Your task to perform on an android device: Open Youtube and go to "Your channel" Image 0: 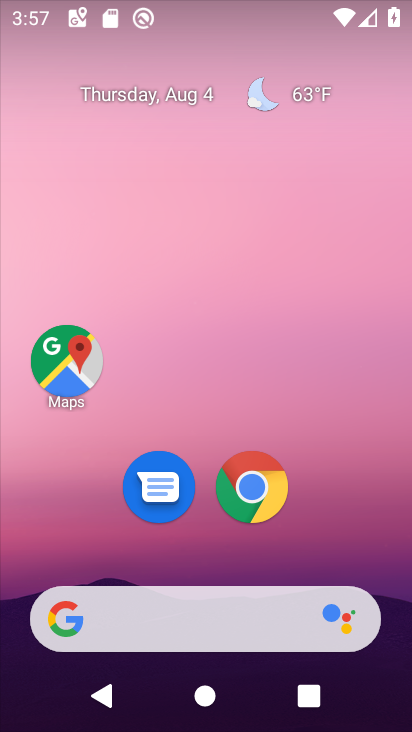
Step 0: drag from (173, 563) to (231, 159)
Your task to perform on an android device: Open Youtube and go to "Your channel" Image 1: 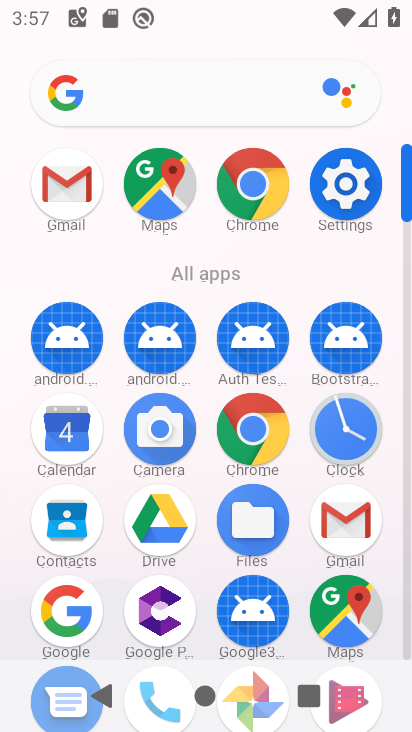
Step 1: drag from (200, 555) to (367, 13)
Your task to perform on an android device: Open Youtube and go to "Your channel" Image 2: 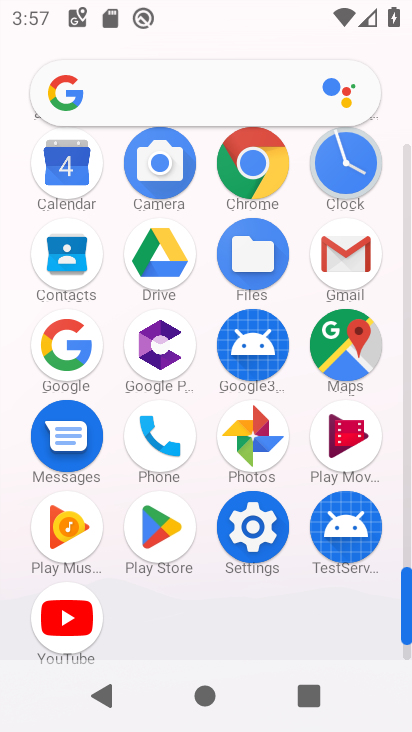
Step 2: click (58, 621)
Your task to perform on an android device: Open Youtube and go to "Your channel" Image 3: 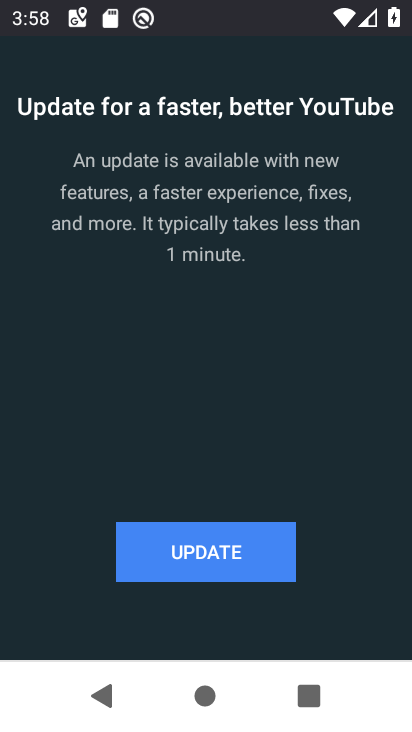
Step 3: task complete